Your task to perform on an android device: toggle sleep mode Image 0: 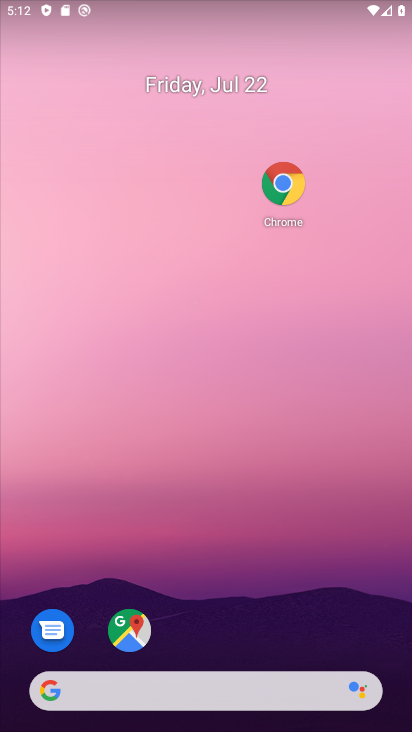
Step 0: drag from (213, 632) to (271, 240)
Your task to perform on an android device: toggle sleep mode Image 1: 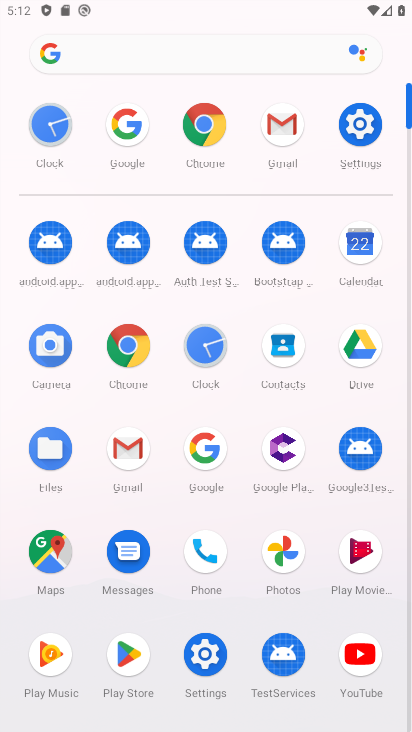
Step 1: drag from (186, 633) to (255, 143)
Your task to perform on an android device: toggle sleep mode Image 2: 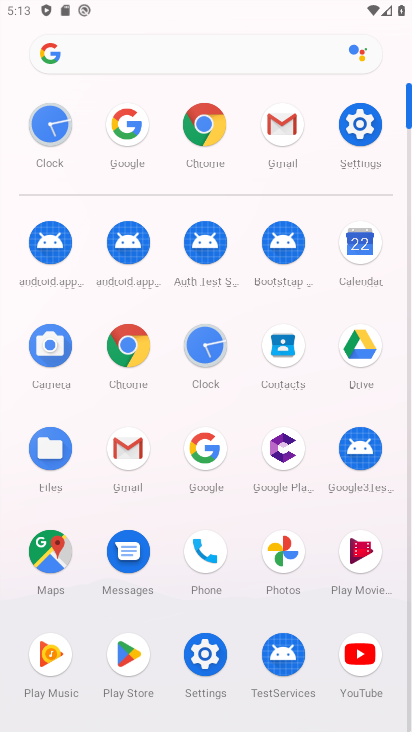
Step 2: click (366, 137)
Your task to perform on an android device: toggle sleep mode Image 3: 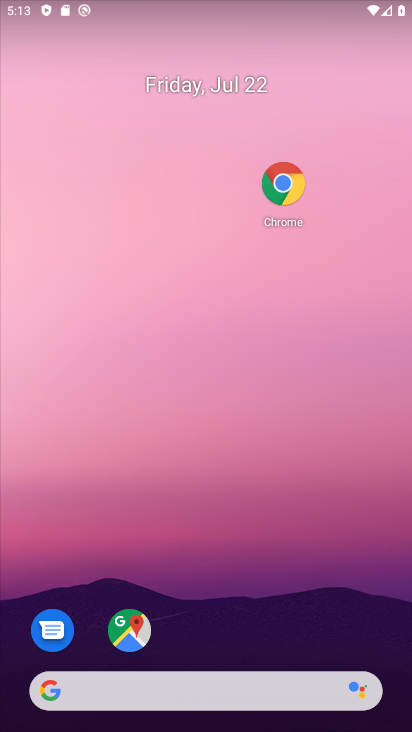
Step 3: drag from (205, 616) to (186, 229)
Your task to perform on an android device: toggle sleep mode Image 4: 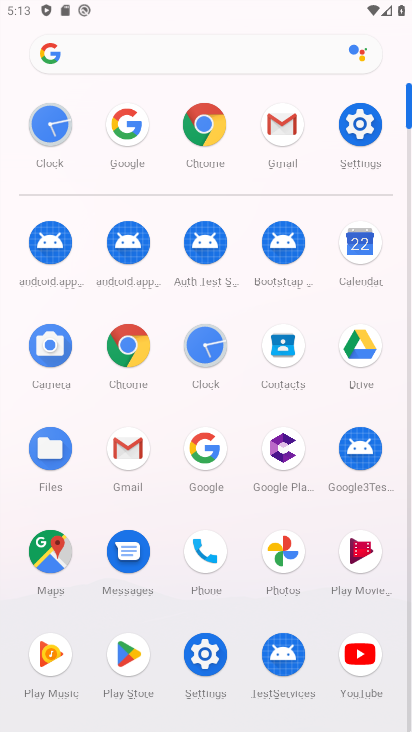
Step 4: click (202, 668)
Your task to perform on an android device: toggle sleep mode Image 5: 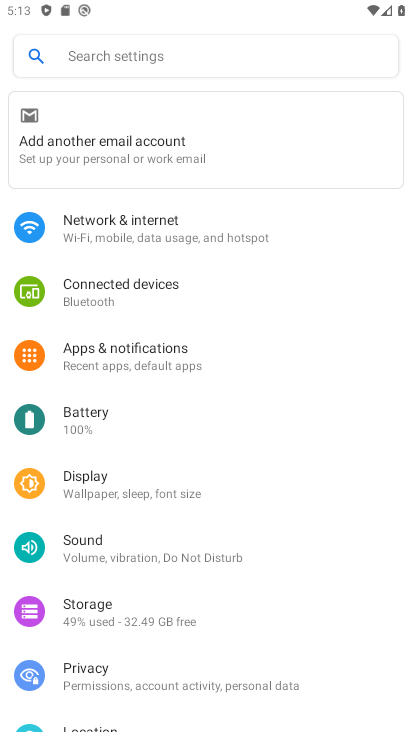
Step 5: task complete